Your task to perform on an android device: open sync settings in chrome Image 0: 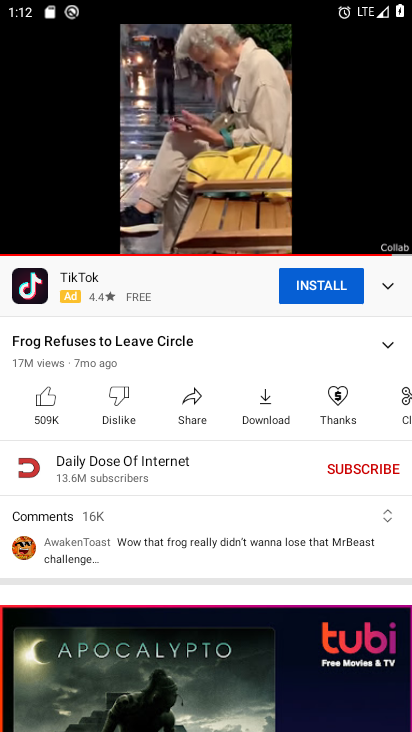
Step 0: press home button
Your task to perform on an android device: open sync settings in chrome Image 1: 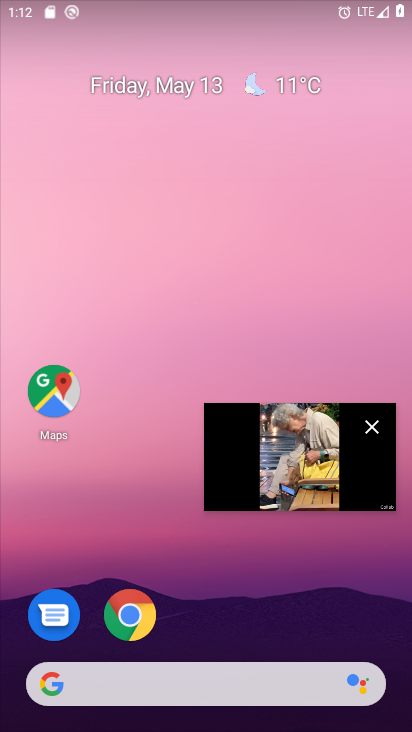
Step 1: drag from (137, 519) to (216, 34)
Your task to perform on an android device: open sync settings in chrome Image 2: 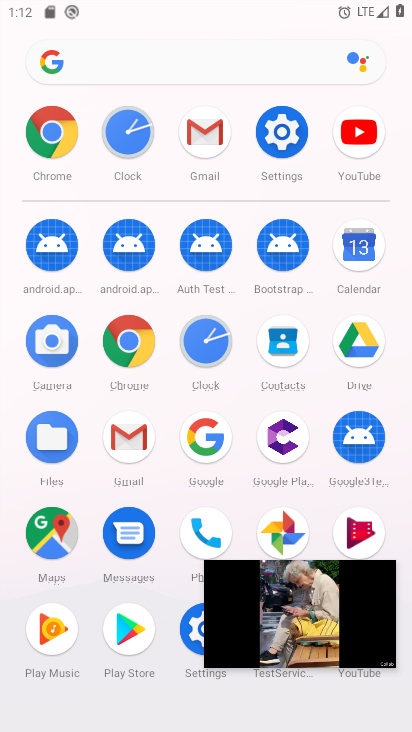
Step 2: click (56, 141)
Your task to perform on an android device: open sync settings in chrome Image 3: 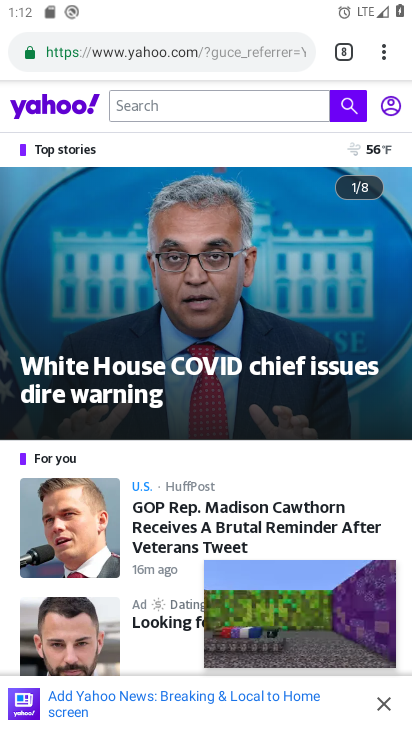
Step 3: click (382, 50)
Your task to perform on an android device: open sync settings in chrome Image 4: 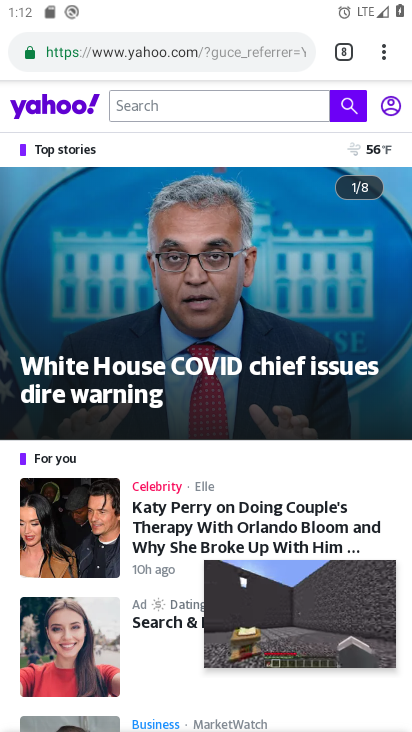
Step 4: click (382, 50)
Your task to perform on an android device: open sync settings in chrome Image 5: 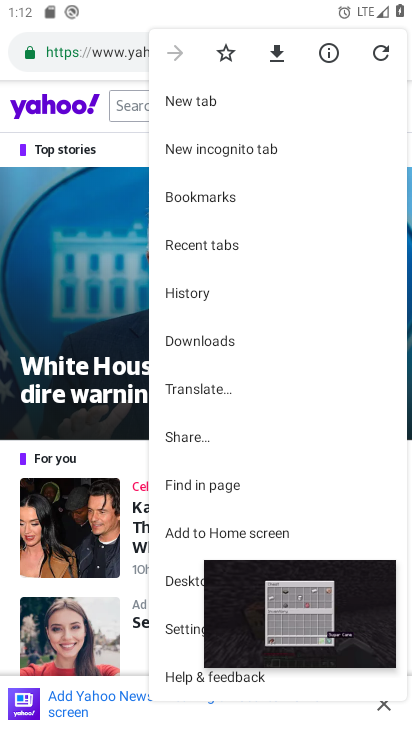
Step 5: drag from (368, 603) to (356, 379)
Your task to perform on an android device: open sync settings in chrome Image 6: 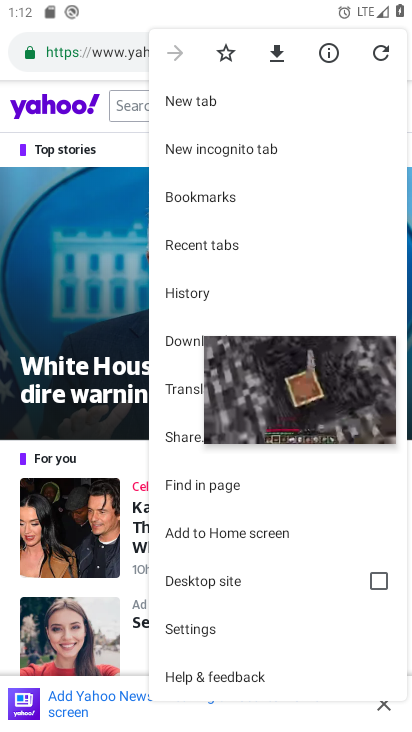
Step 6: click (210, 627)
Your task to perform on an android device: open sync settings in chrome Image 7: 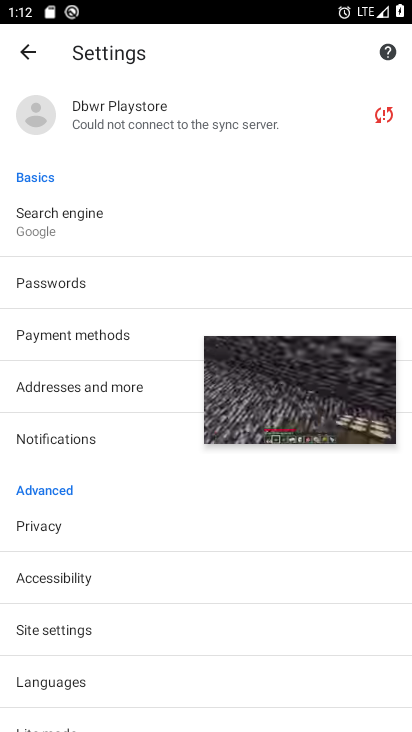
Step 7: click (168, 122)
Your task to perform on an android device: open sync settings in chrome Image 8: 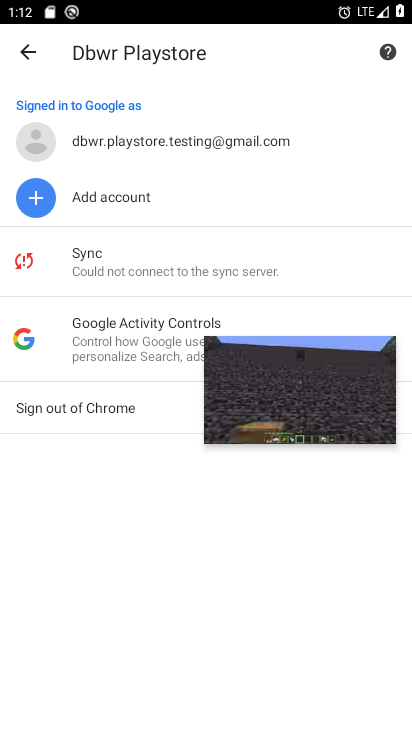
Step 8: click (93, 261)
Your task to perform on an android device: open sync settings in chrome Image 9: 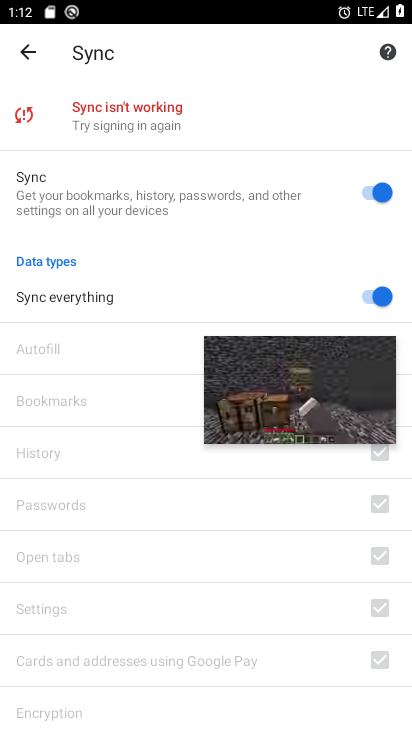
Step 9: task complete